Your task to perform on an android device: Go to Android settings Image 0: 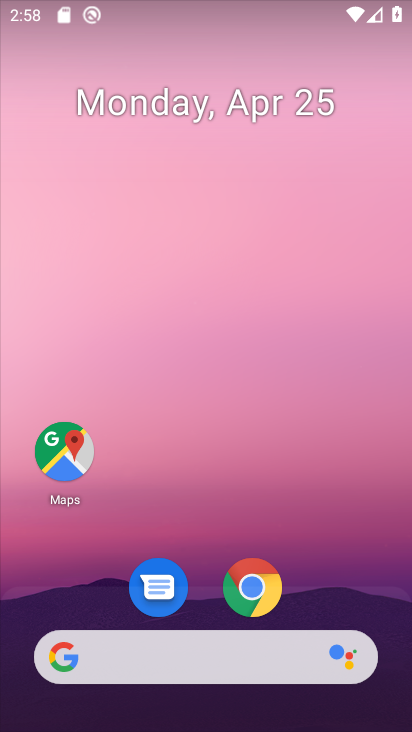
Step 0: drag from (336, 553) to (342, 92)
Your task to perform on an android device: Go to Android settings Image 1: 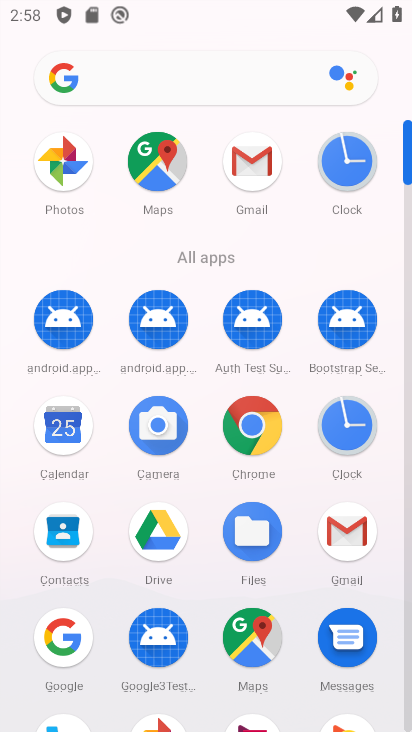
Step 1: click (405, 714)
Your task to perform on an android device: Go to Android settings Image 2: 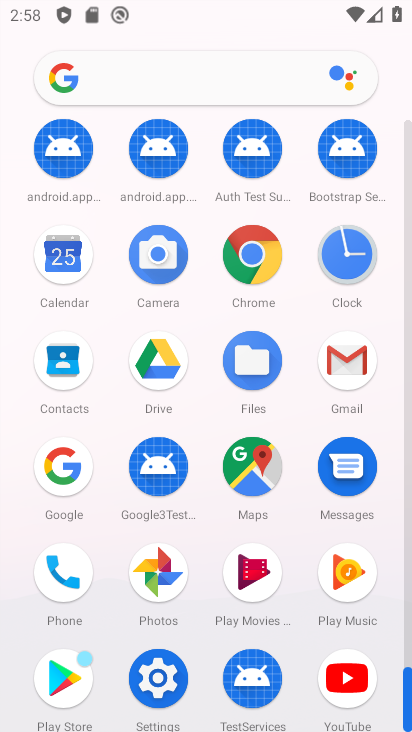
Step 2: click (157, 669)
Your task to perform on an android device: Go to Android settings Image 3: 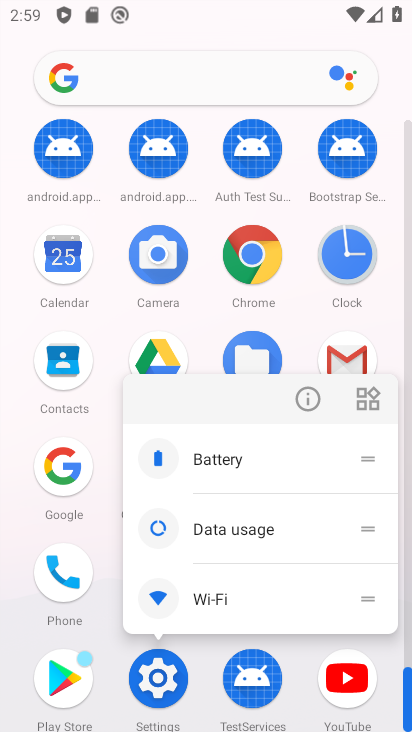
Step 3: click (157, 669)
Your task to perform on an android device: Go to Android settings Image 4: 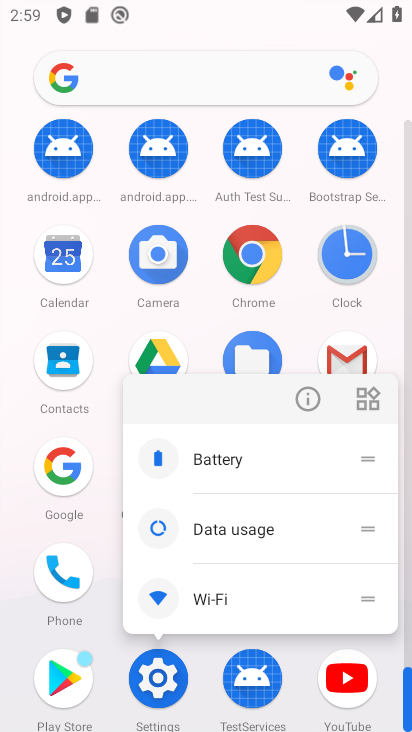
Step 4: click (157, 669)
Your task to perform on an android device: Go to Android settings Image 5: 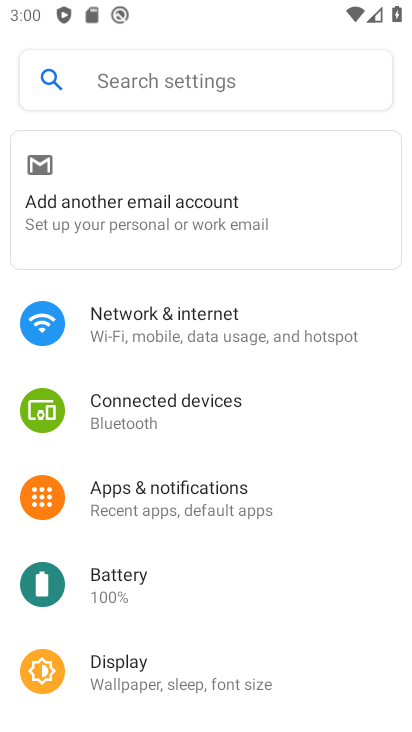
Step 5: drag from (246, 603) to (220, 204)
Your task to perform on an android device: Go to Android settings Image 6: 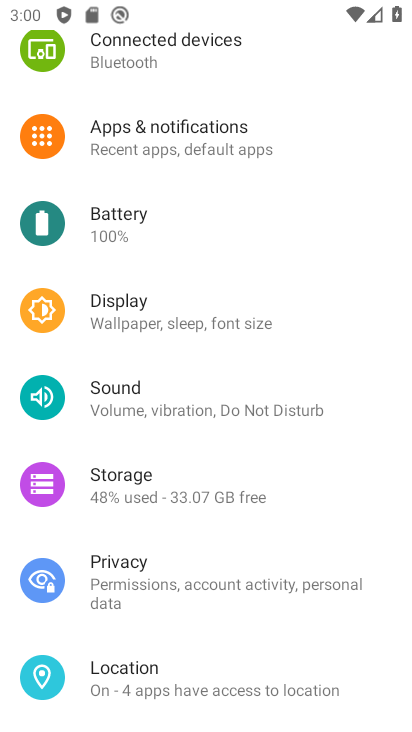
Step 6: drag from (248, 566) to (240, 150)
Your task to perform on an android device: Go to Android settings Image 7: 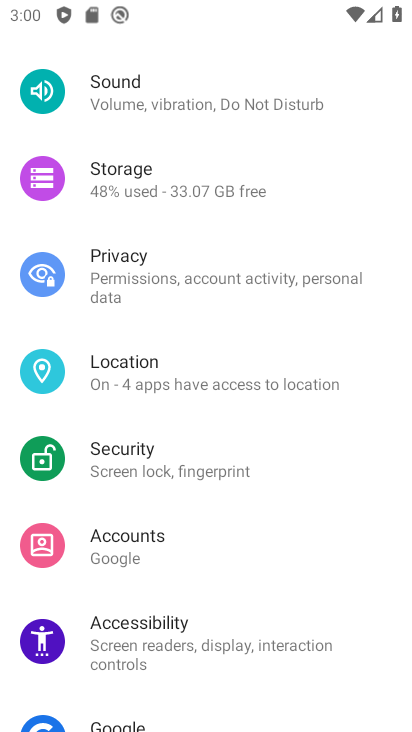
Step 7: drag from (244, 601) to (242, 221)
Your task to perform on an android device: Go to Android settings Image 8: 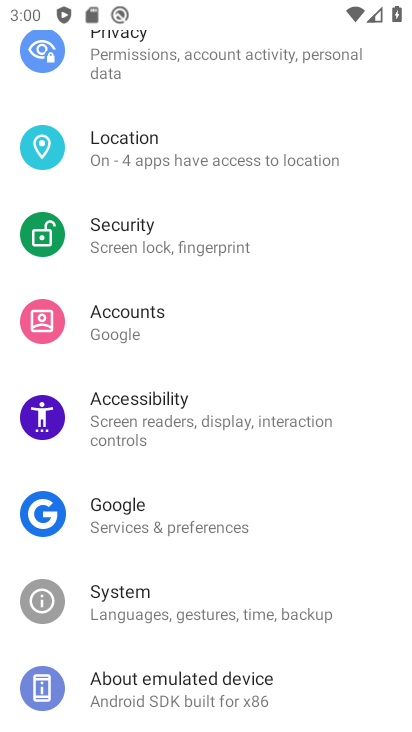
Step 8: drag from (241, 465) to (232, 255)
Your task to perform on an android device: Go to Android settings Image 9: 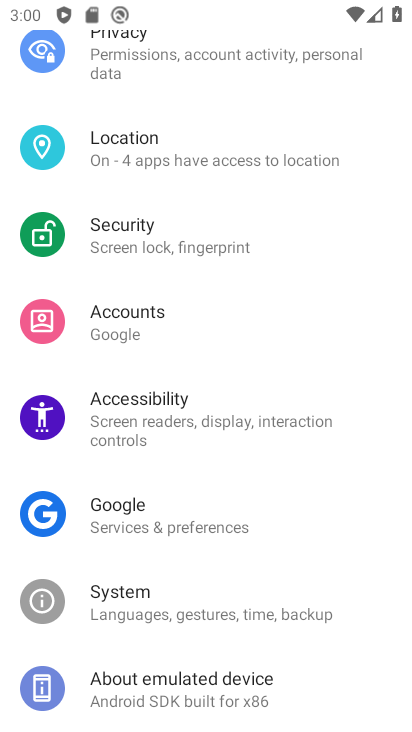
Step 9: click (93, 672)
Your task to perform on an android device: Go to Android settings Image 10: 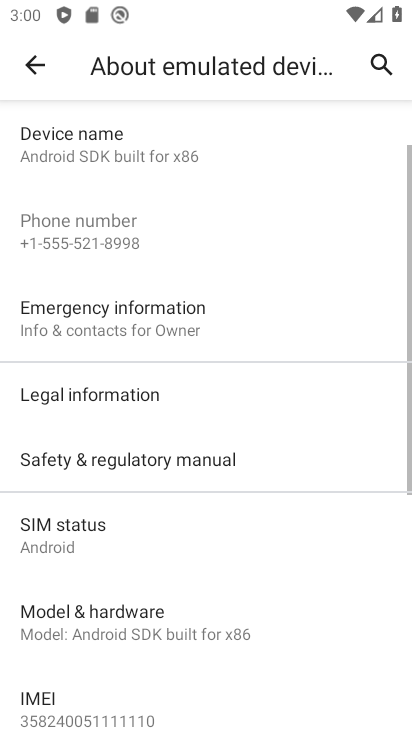
Step 10: drag from (313, 612) to (308, 219)
Your task to perform on an android device: Go to Android settings Image 11: 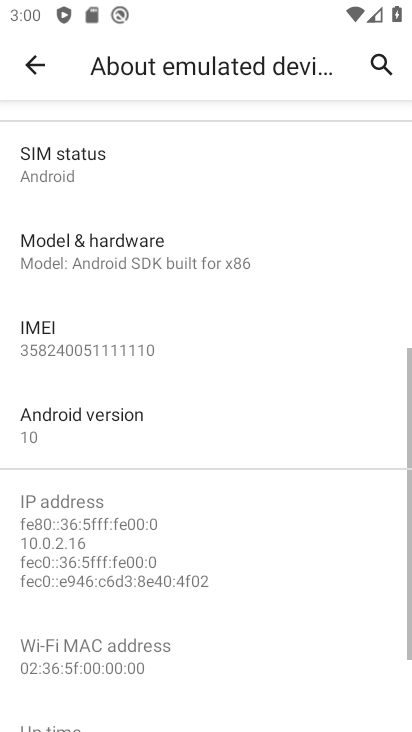
Step 11: click (115, 441)
Your task to perform on an android device: Go to Android settings Image 12: 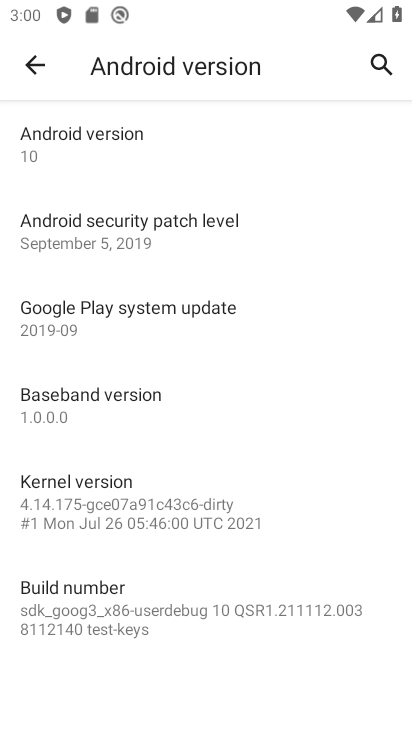
Step 12: task complete